Your task to perform on an android device: Set the phone to "Do not disturb". Image 0: 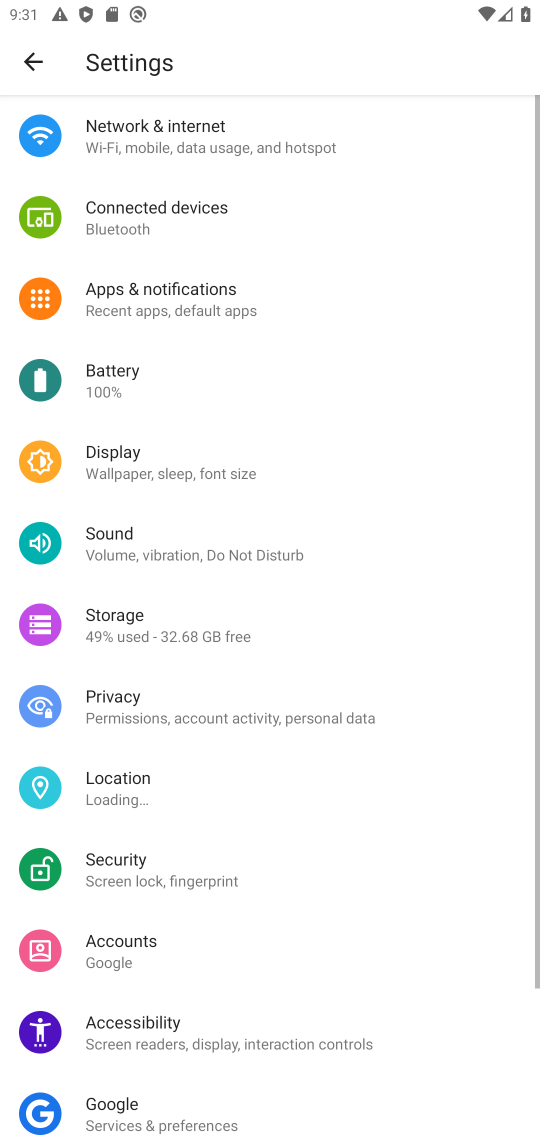
Step 0: press home button
Your task to perform on an android device: Set the phone to "Do not disturb". Image 1: 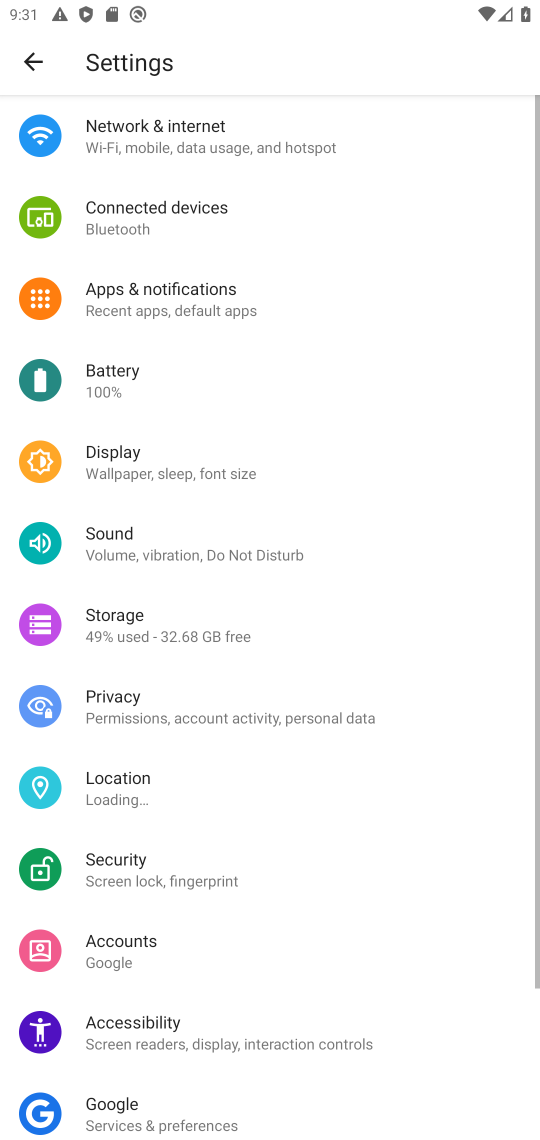
Step 1: drag from (148, 0) to (0, 880)
Your task to perform on an android device: Set the phone to "Do not disturb". Image 2: 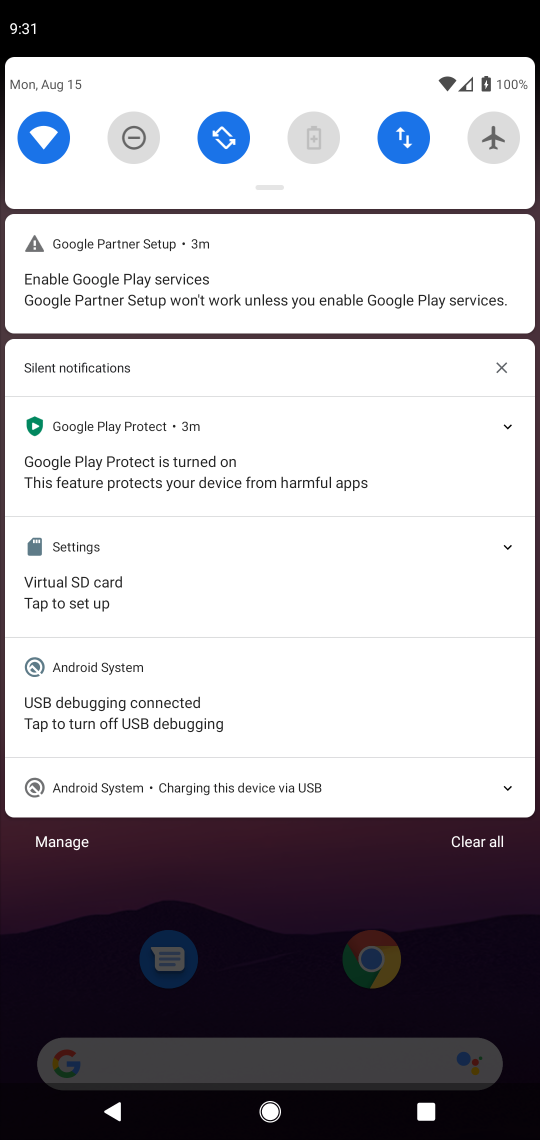
Step 2: click (119, 136)
Your task to perform on an android device: Set the phone to "Do not disturb". Image 3: 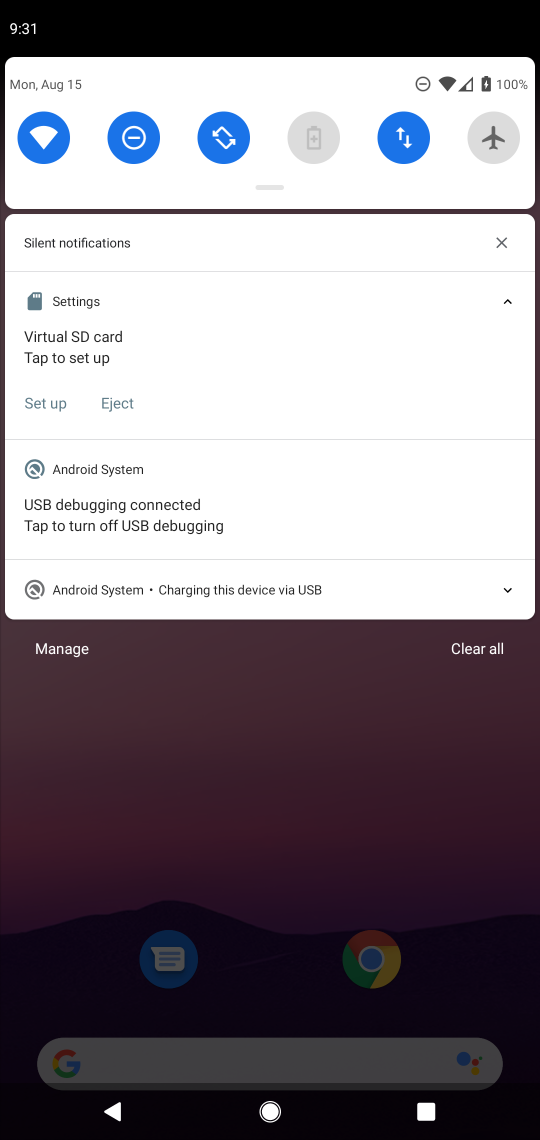
Step 3: task complete